Your task to perform on an android device: How do I get to the nearest Home Depot? Image 0: 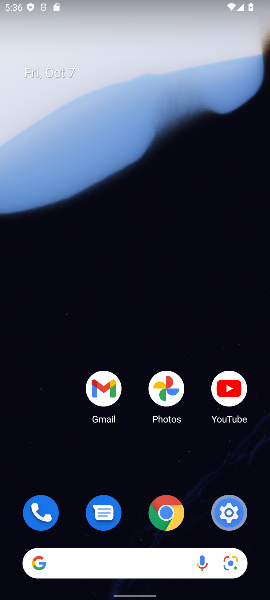
Step 0: press home button
Your task to perform on an android device: How do I get to the nearest Home Depot? Image 1: 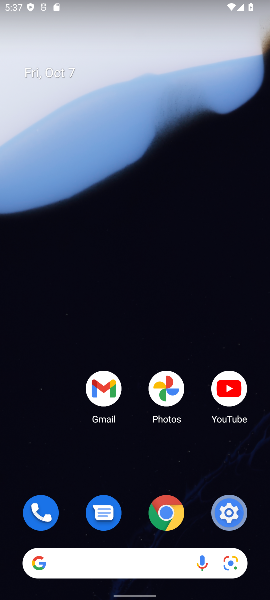
Step 1: click (93, 559)
Your task to perform on an android device: How do I get to the nearest Home Depot? Image 2: 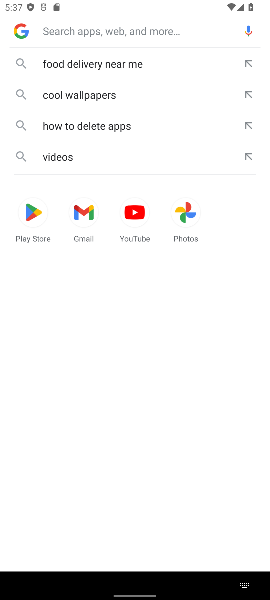
Step 2: type "How do I get to the nearest Home Depot"
Your task to perform on an android device: How do I get to the nearest Home Depot? Image 3: 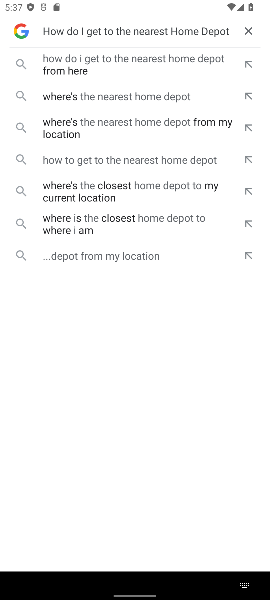
Step 3: click (126, 62)
Your task to perform on an android device: How do I get to the nearest Home Depot? Image 4: 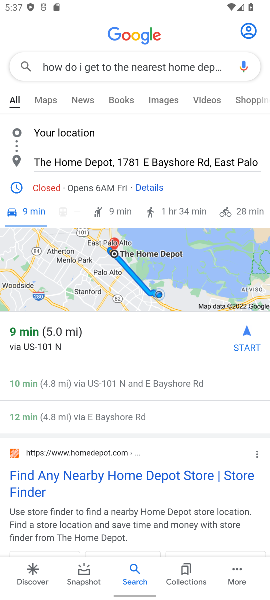
Step 4: task complete